Your task to perform on an android device: Open Google Chrome and open the bookmarks view Image 0: 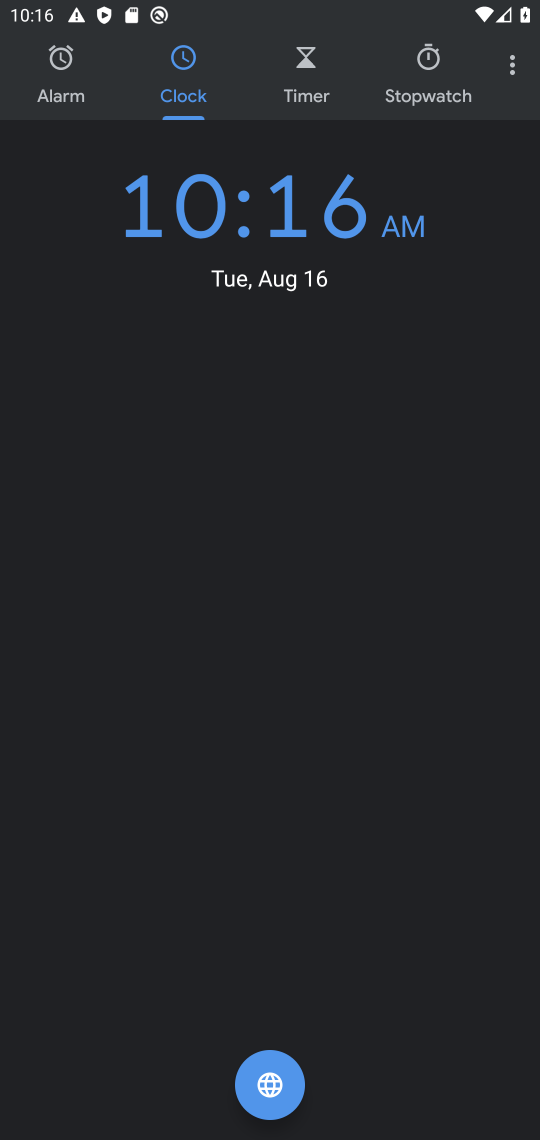
Step 0: press home button
Your task to perform on an android device: Open Google Chrome and open the bookmarks view Image 1: 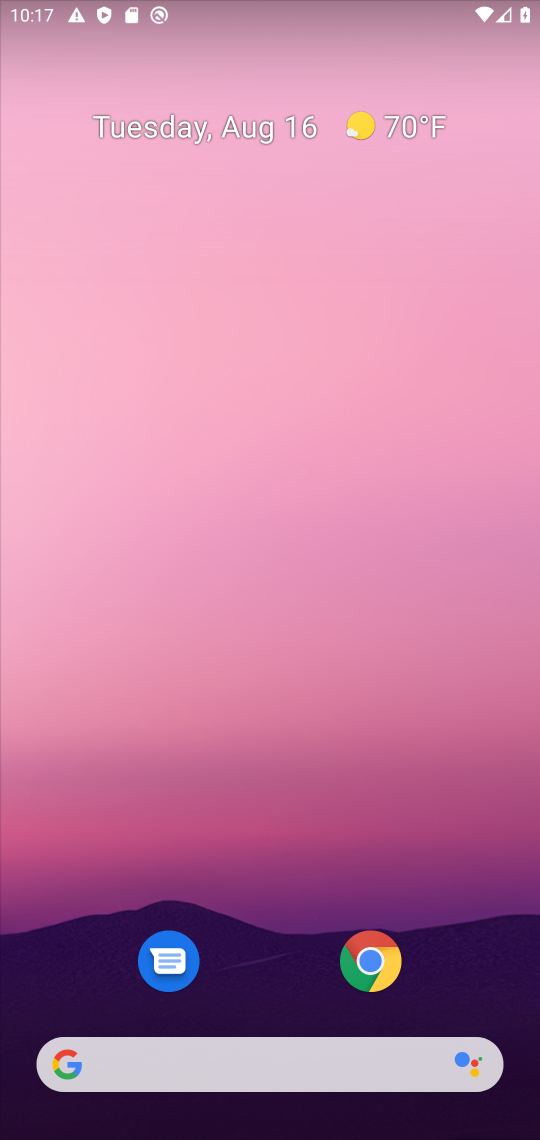
Step 1: click (375, 939)
Your task to perform on an android device: Open Google Chrome and open the bookmarks view Image 2: 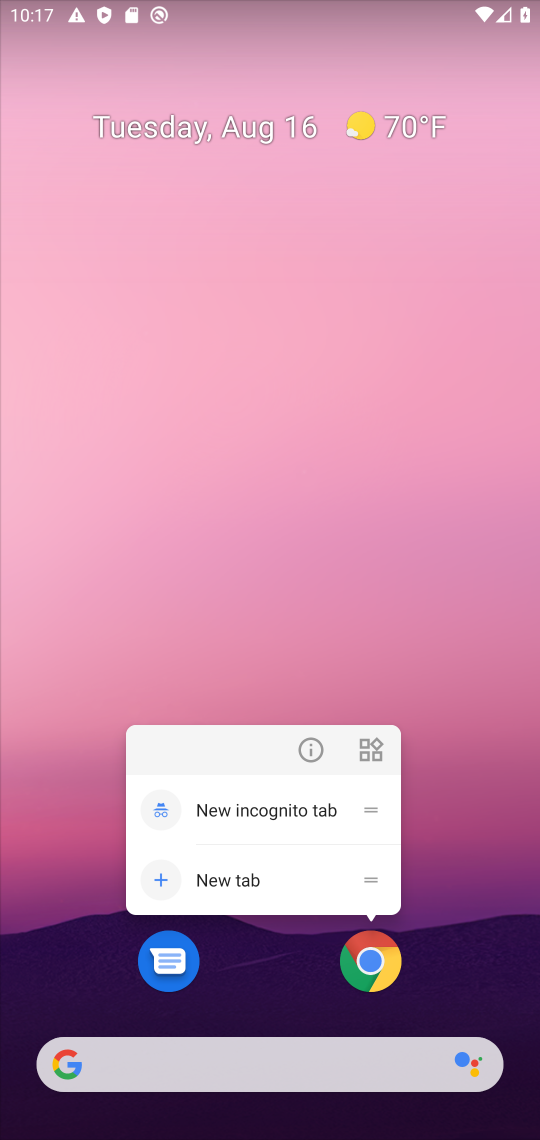
Step 2: click (361, 959)
Your task to perform on an android device: Open Google Chrome and open the bookmarks view Image 3: 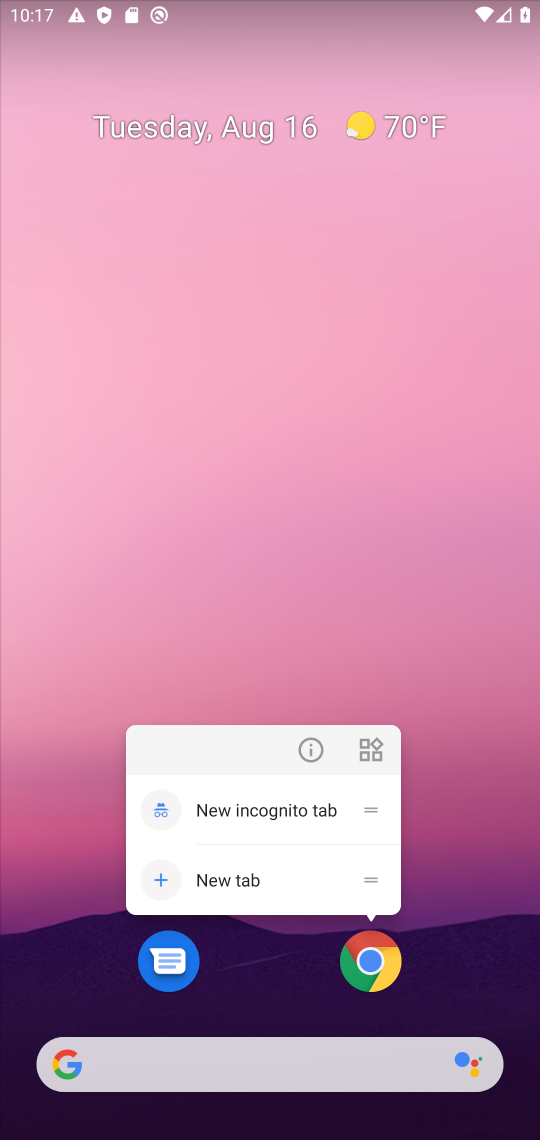
Step 3: click (361, 959)
Your task to perform on an android device: Open Google Chrome and open the bookmarks view Image 4: 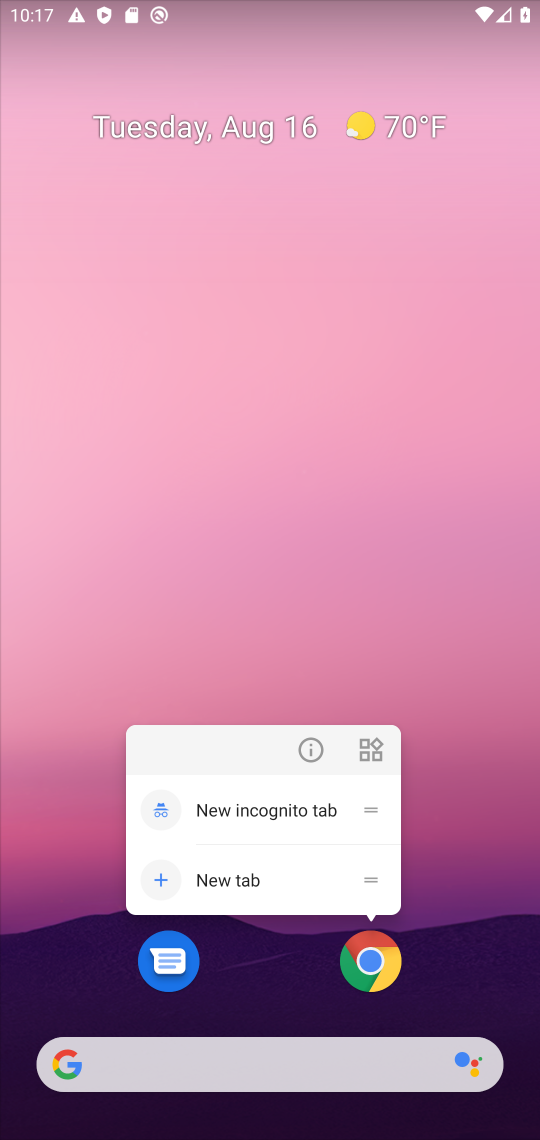
Step 4: click (456, 869)
Your task to perform on an android device: Open Google Chrome and open the bookmarks view Image 5: 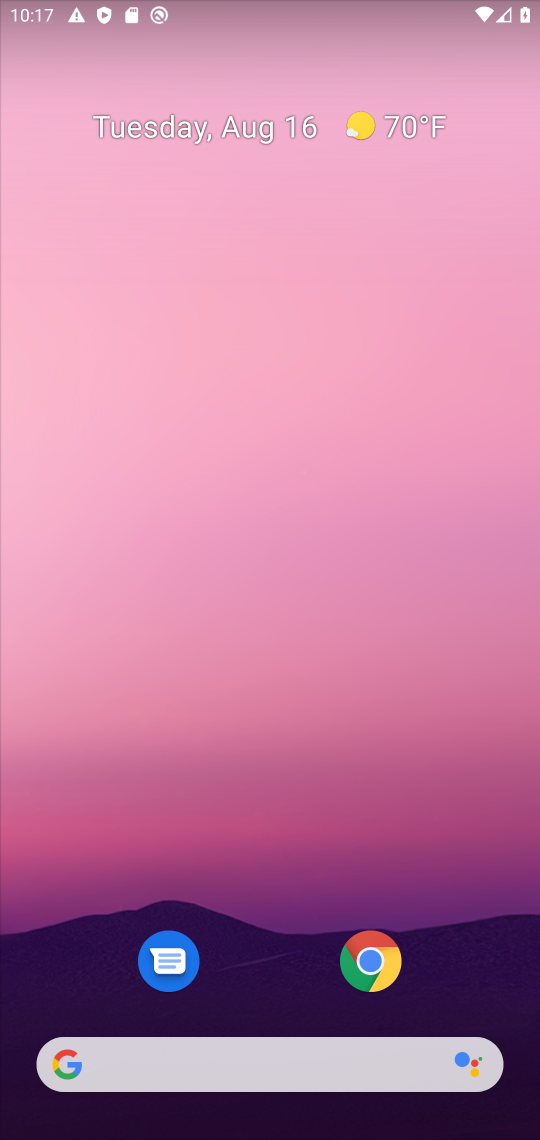
Step 5: task complete